Your task to perform on an android device: add a contact Image 0: 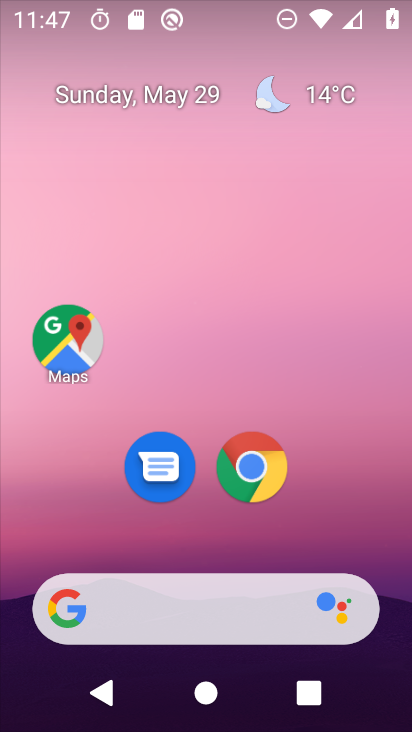
Step 0: drag from (200, 538) to (210, 183)
Your task to perform on an android device: add a contact Image 1: 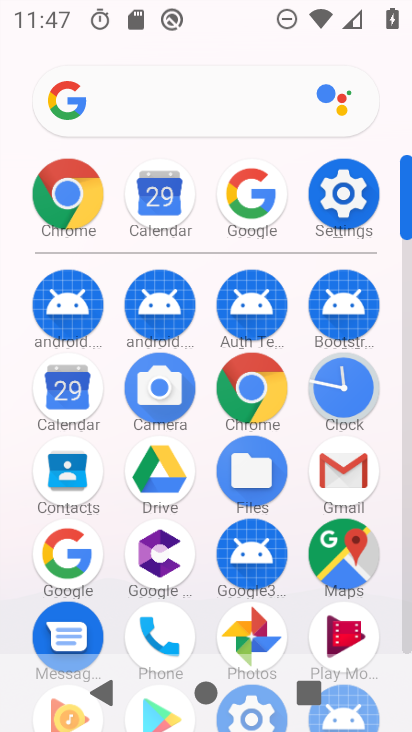
Step 1: click (64, 480)
Your task to perform on an android device: add a contact Image 2: 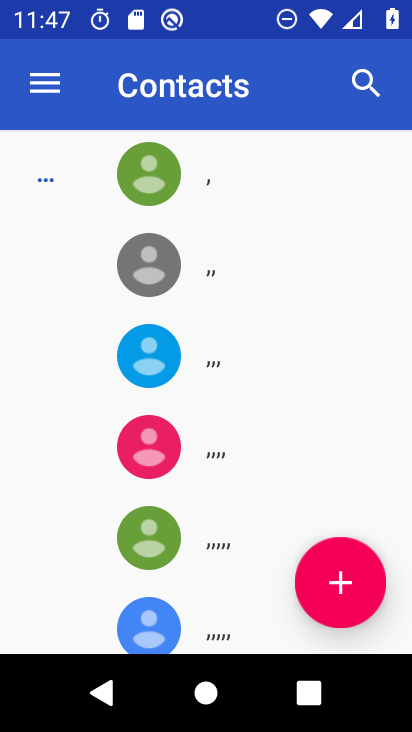
Step 2: click (335, 558)
Your task to perform on an android device: add a contact Image 3: 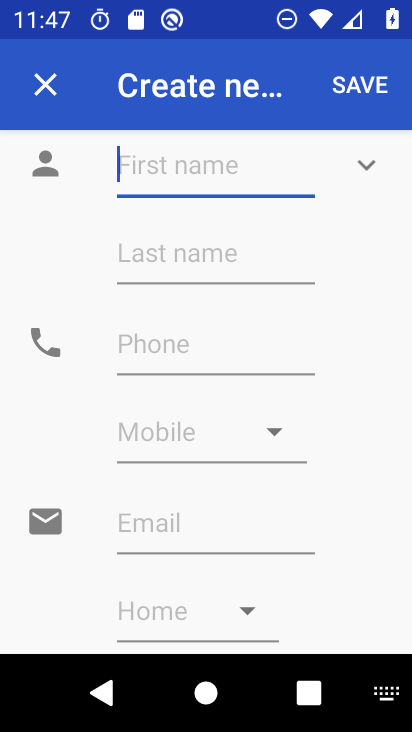
Step 3: type "dfgdfg"
Your task to perform on an android device: add a contact Image 4: 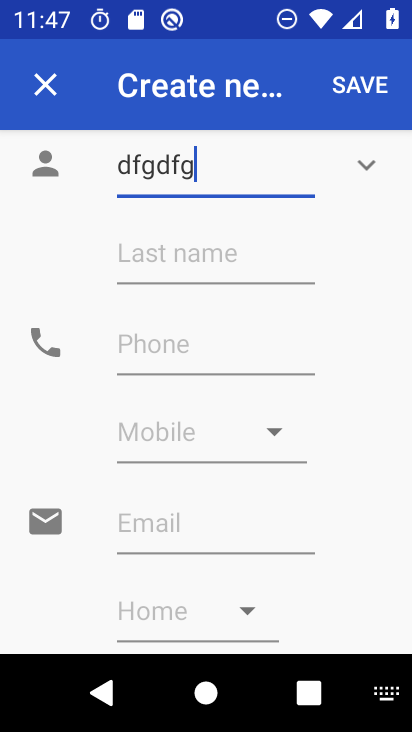
Step 4: click (200, 344)
Your task to perform on an android device: add a contact Image 5: 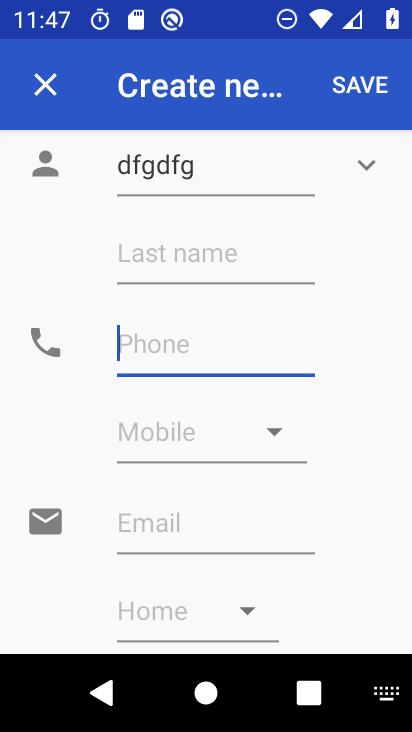
Step 5: type "979768656687"
Your task to perform on an android device: add a contact Image 6: 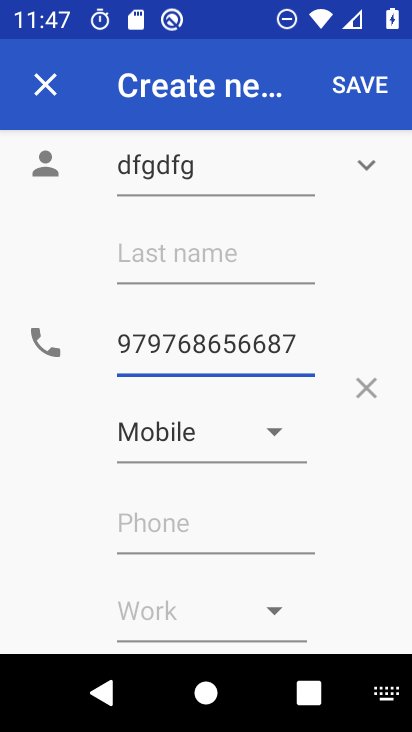
Step 6: click (365, 82)
Your task to perform on an android device: add a contact Image 7: 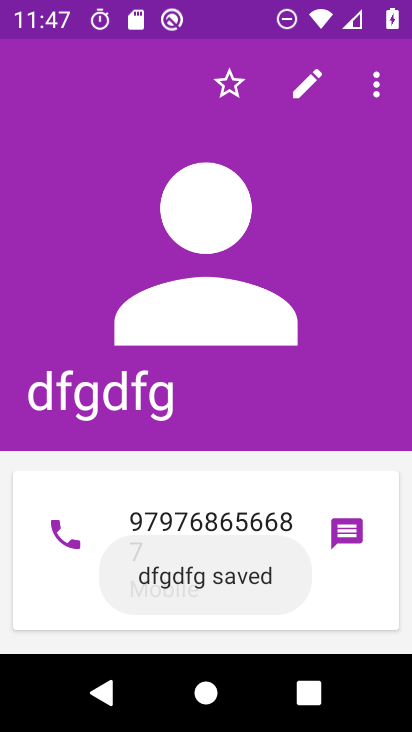
Step 7: task complete